Your task to perform on an android device: Search for Mexican restaurants on Maps Image 0: 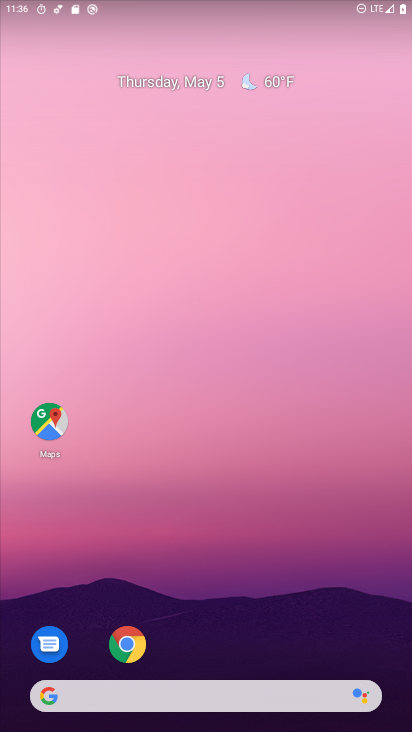
Step 0: drag from (380, 651) to (352, 153)
Your task to perform on an android device: Search for Mexican restaurants on Maps Image 1: 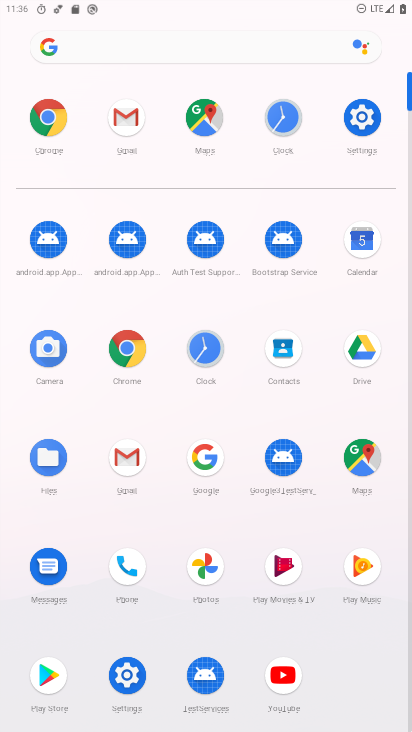
Step 1: click (353, 463)
Your task to perform on an android device: Search for Mexican restaurants on Maps Image 2: 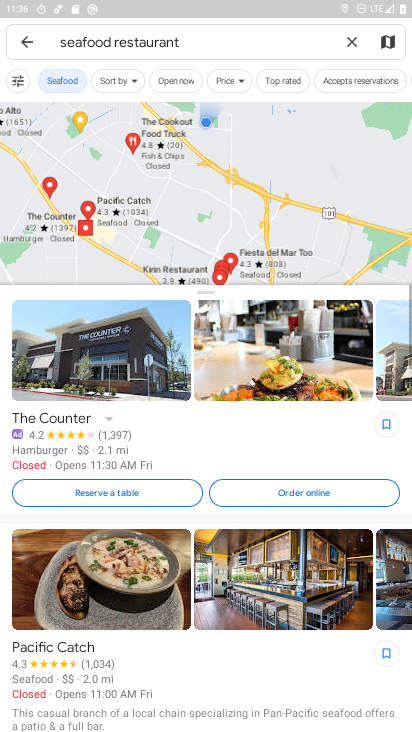
Step 2: click (219, 41)
Your task to perform on an android device: Search for Mexican restaurants on Maps Image 3: 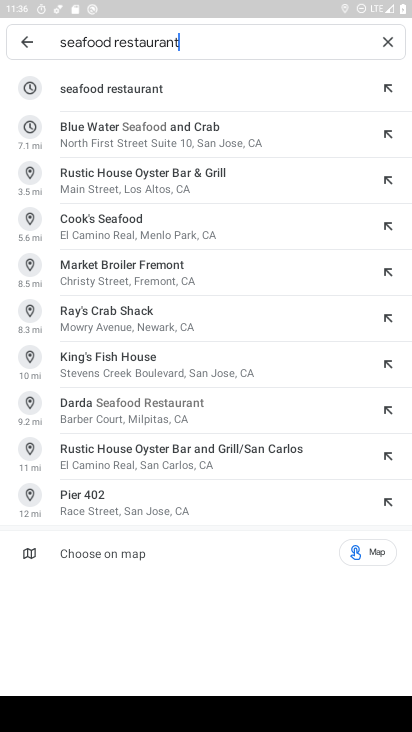
Step 3: click (390, 39)
Your task to perform on an android device: Search for Mexican restaurants on Maps Image 4: 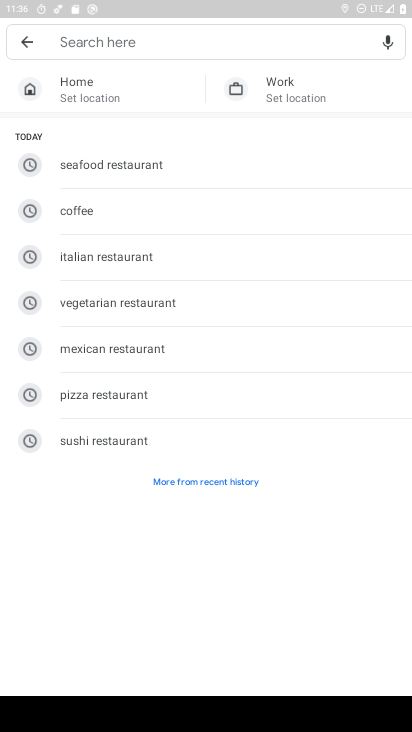
Step 4: click (168, 351)
Your task to perform on an android device: Search for Mexican restaurants on Maps Image 5: 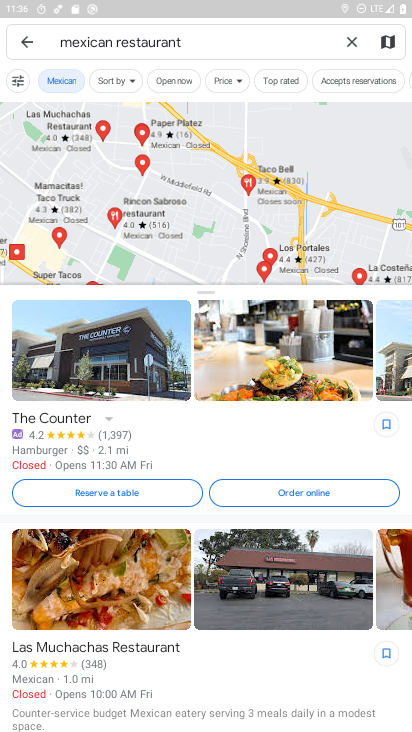
Step 5: task complete